Your task to perform on an android device: open chrome and create a bookmark for the current page Image 0: 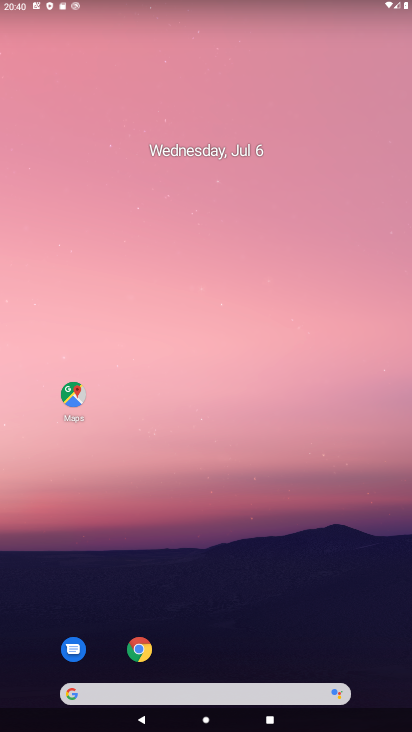
Step 0: click (141, 654)
Your task to perform on an android device: open chrome and create a bookmark for the current page Image 1: 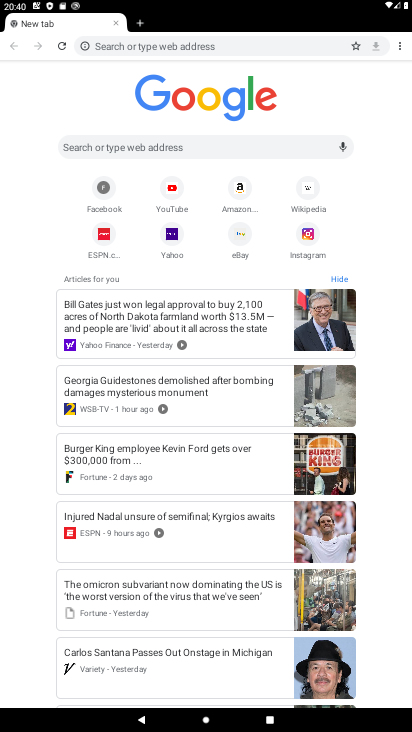
Step 1: click (357, 46)
Your task to perform on an android device: open chrome and create a bookmark for the current page Image 2: 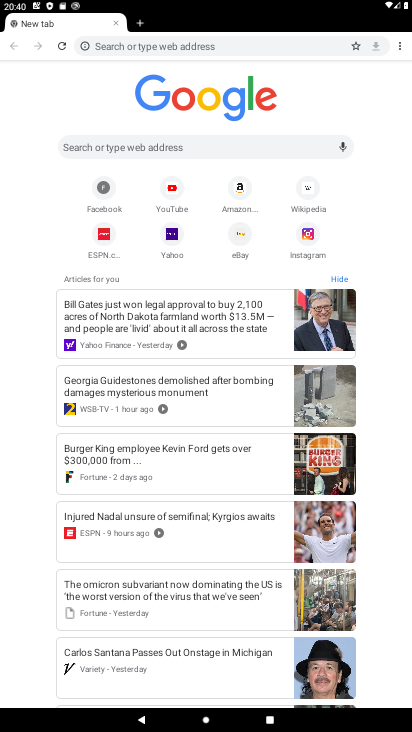
Step 2: click (356, 45)
Your task to perform on an android device: open chrome and create a bookmark for the current page Image 3: 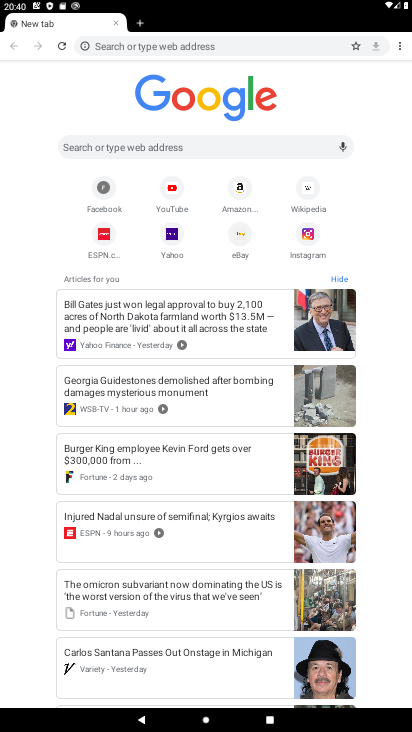
Step 3: click (355, 45)
Your task to perform on an android device: open chrome and create a bookmark for the current page Image 4: 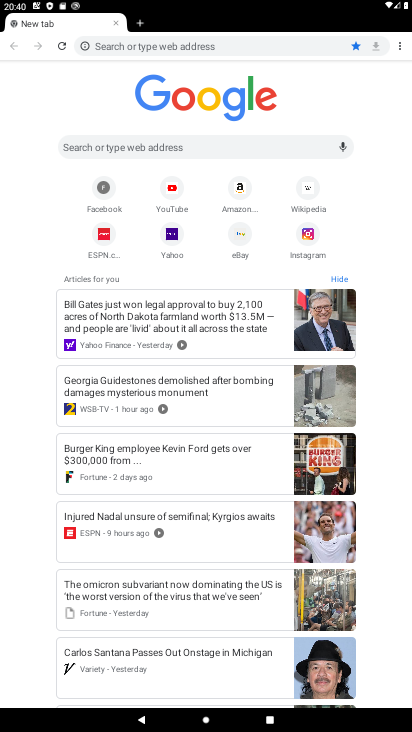
Step 4: task complete